Your task to perform on an android device: What's the weather going to be tomorrow? Image 0: 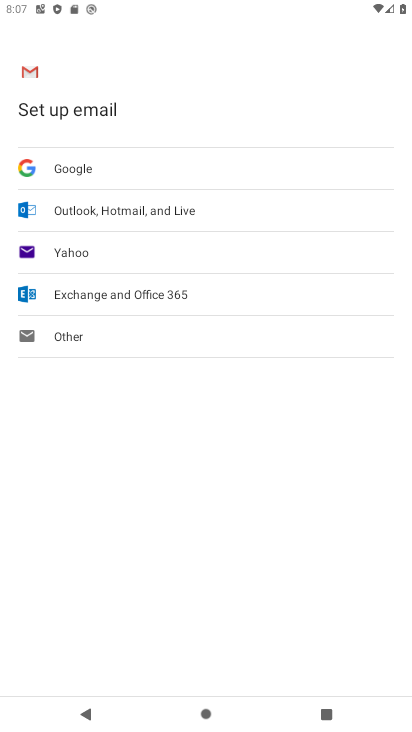
Step 0: press home button
Your task to perform on an android device: What's the weather going to be tomorrow? Image 1: 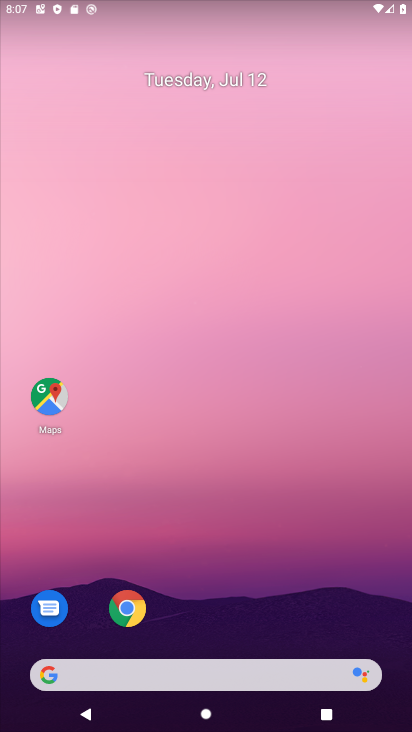
Step 1: click (219, 677)
Your task to perform on an android device: What's the weather going to be tomorrow? Image 2: 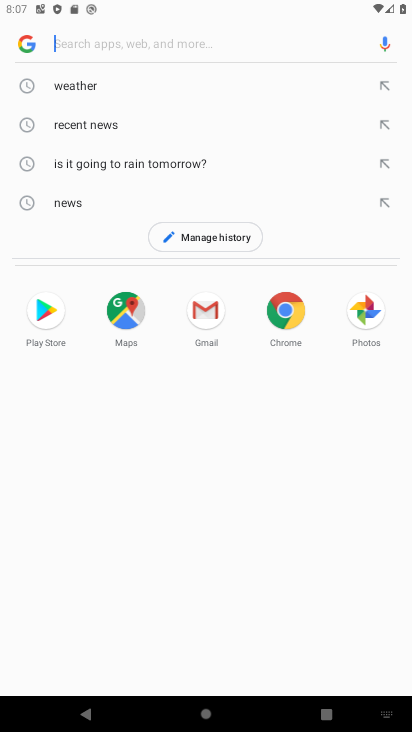
Step 2: click (174, 173)
Your task to perform on an android device: What's the weather going to be tomorrow? Image 3: 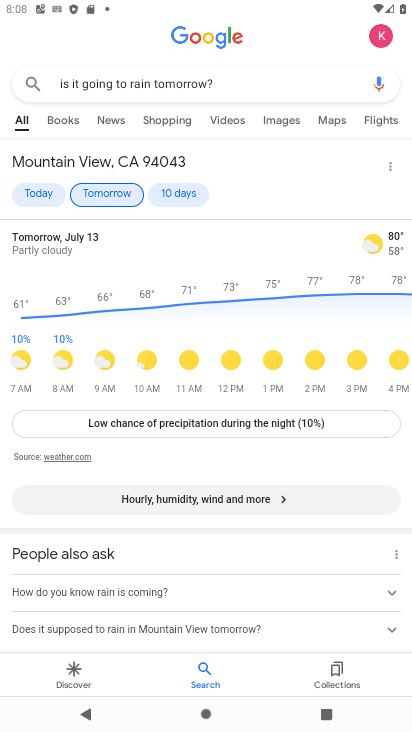
Step 3: task complete